Your task to perform on an android device: Is it going to rain today? Image 0: 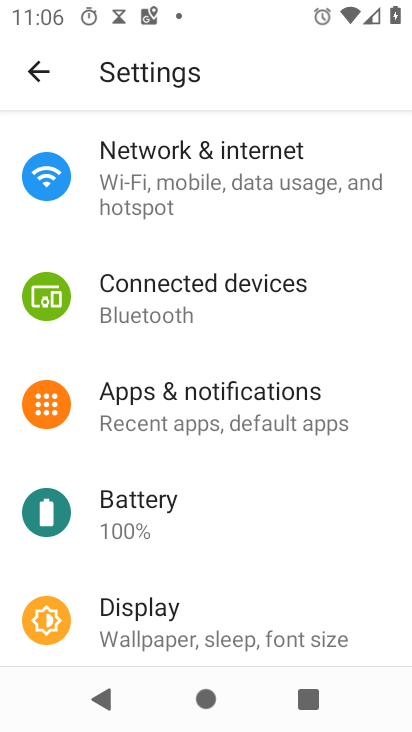
Step 0: press home button
Your task to perform on an android device: Is it going to rain today? Image 1: 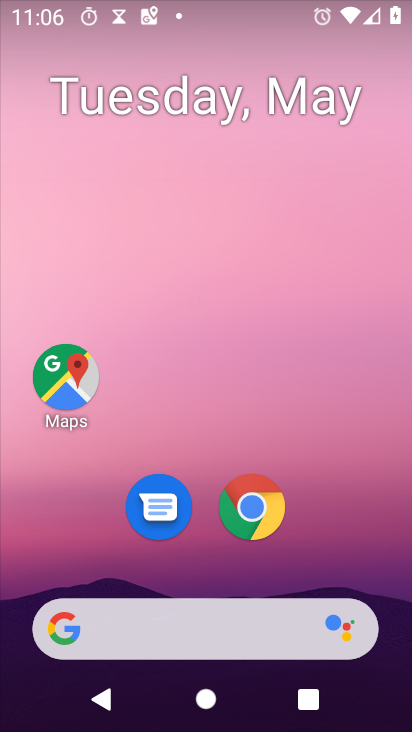
Step 1: click (166, 632)
Your task to perform on an android device: Is it going to rain today? Image 2: 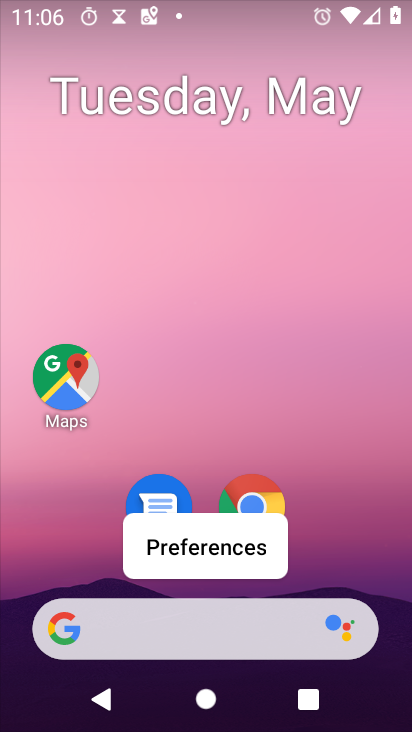
Step 2: click (133, 633)
Your task to perform on an android device: Is it going to rain today? Image 3: 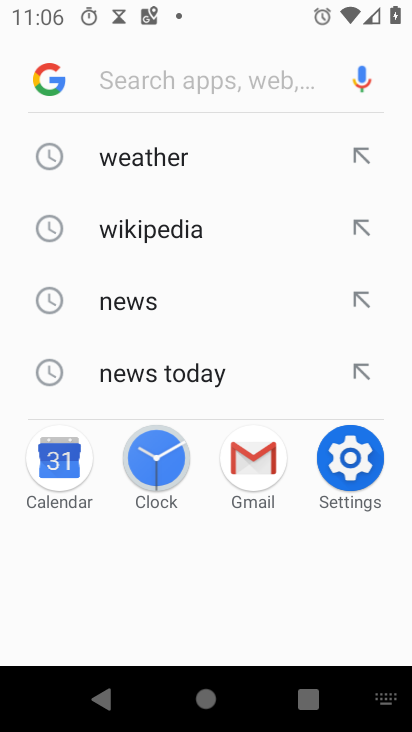
Step 3: click (211, 176)
Your task to perform on an android device: Is it going to rain today? Image 4: 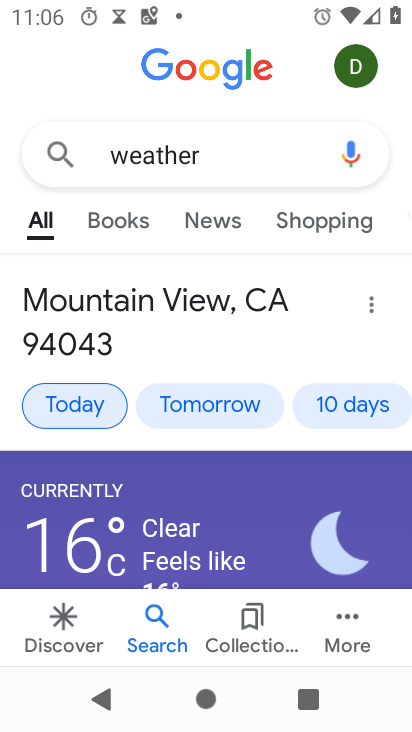
Step 4: task complete